Your task to perform on an android device: toggle pop-ups in chrome Image 0: 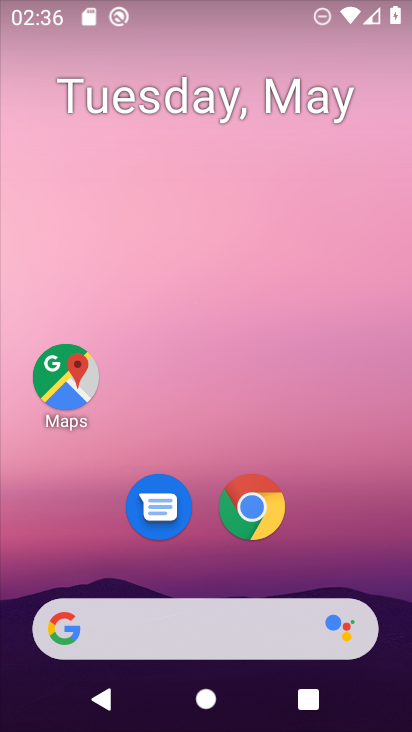
Step 0: click (242, 516)
Your task to perform on an android device: toggle pop-ups in chrome Image 1: 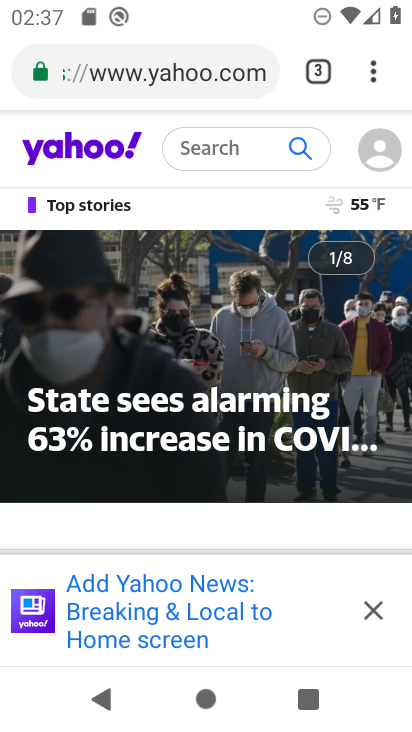
Step 1: drag from (374, 71) to (153, 490)
Your task to perform on an android device: toggle pop-ups in chrome Image 2: 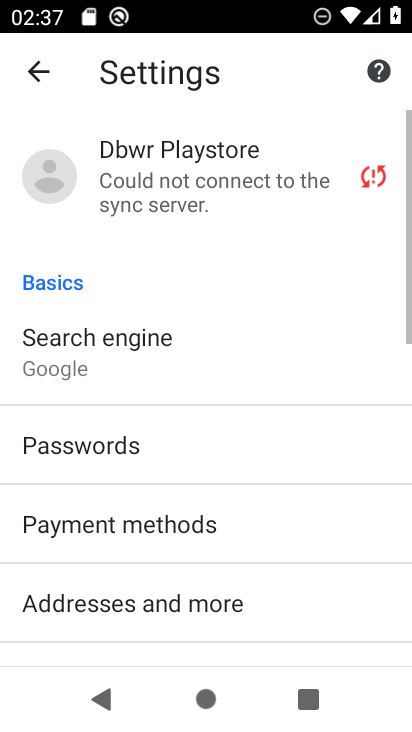
Step 2: drag from (203, 564) to (214, 344)
Your task to perform on an android device: toggle pop-ups in chrome Image 3: 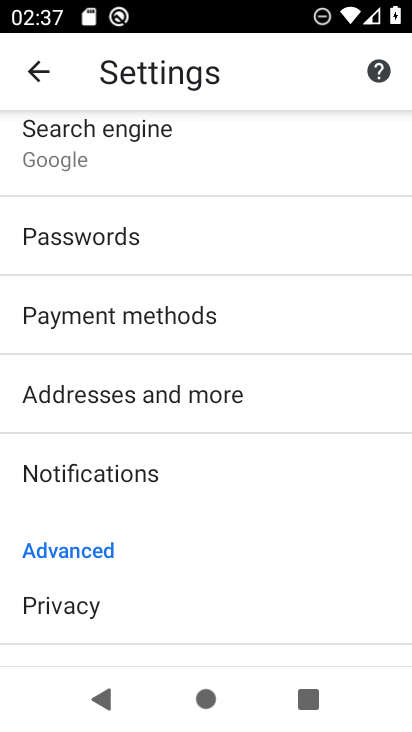
Step 3: drag from (233, 506) to (201, 286)
Your task to perform on an android device: toggle pop-ups in chrome Image 4: 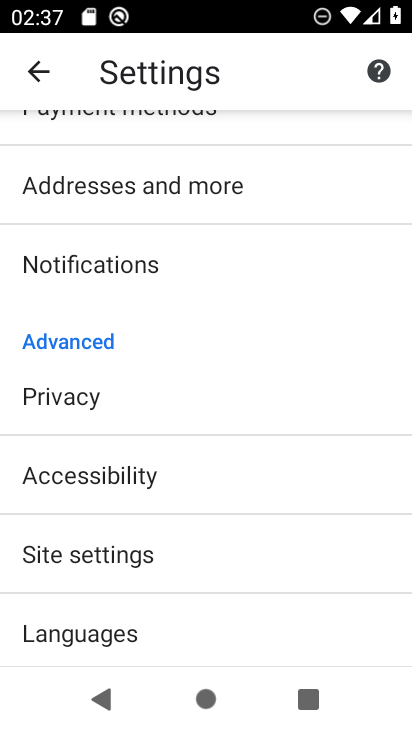
Step 4: click (193, 546)
Your task to perform on an android device: toggle pop-ups in chrome Image 5: 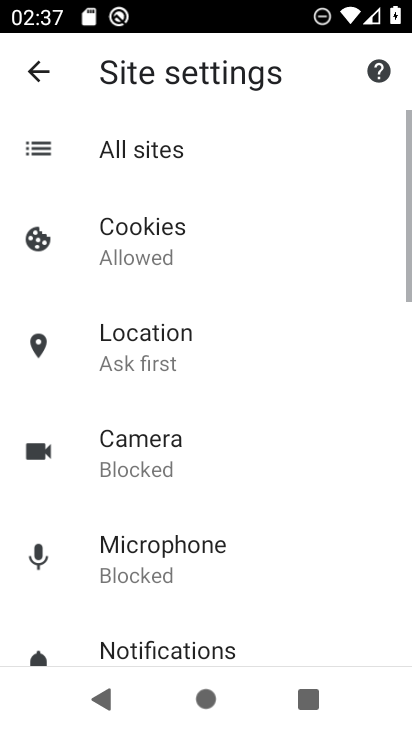
Step 5: drag from (264, 586) to (286, 272)
Your task to perform on an android device: toggle pop-ups in chrome Image 6: 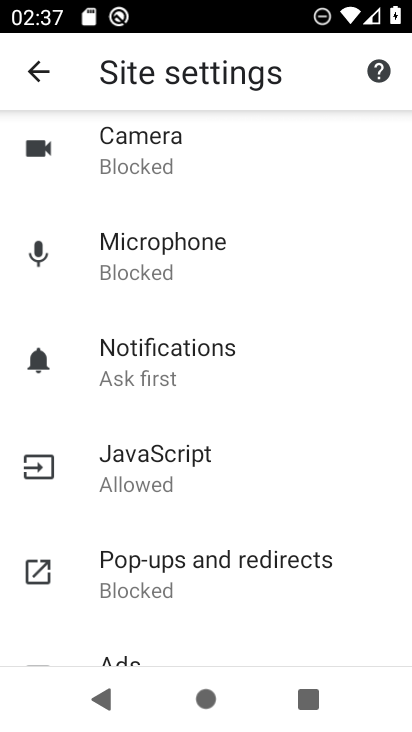
Step 6: click (216, 547)
Your task to perform on an android device: toggle pop-ups in chrome Image 7: 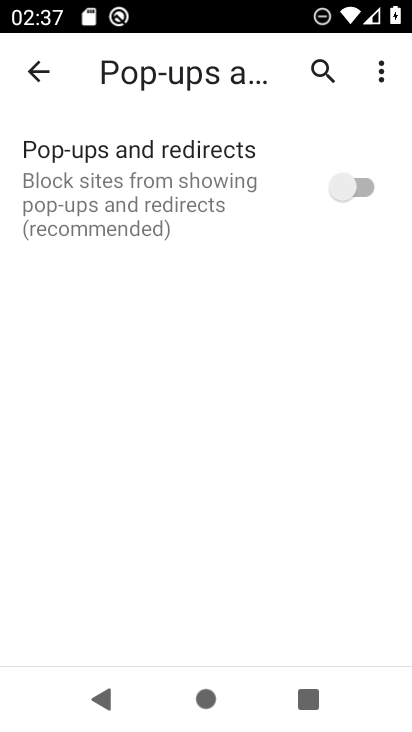
Step 7: click (367, 183)
Your task to perform on an android device: toggle pop-ups in chrome Image 8: 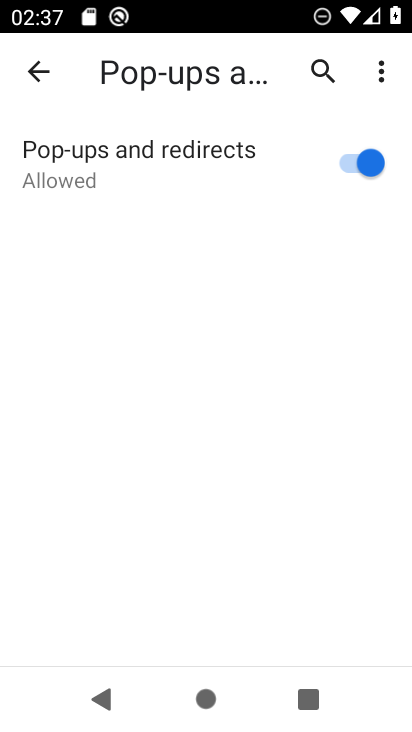
Step 8: task complete